Your task to perform on an android device: search for starred emails in the gmail app Image 0: 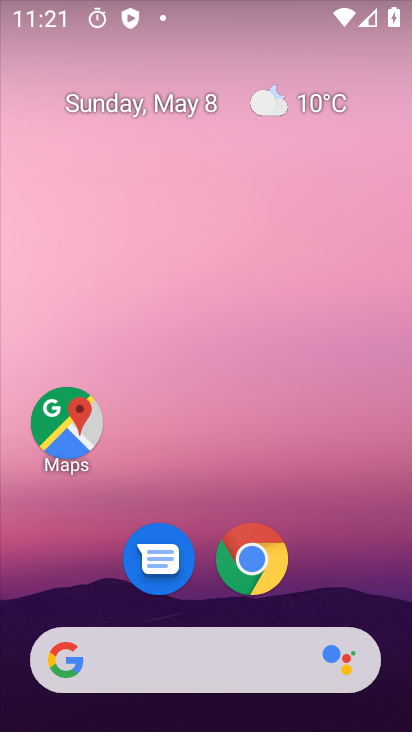
Step 0: drag from (203, 530) to (203, 111)
Your task to perform on an android device: search for starred emails in the gmail app Image 1: 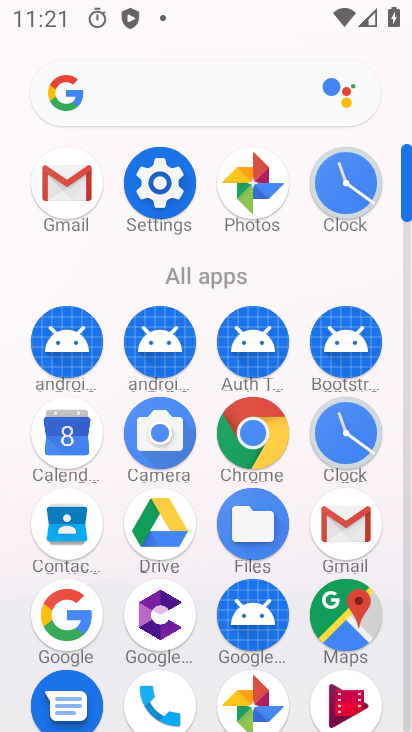
Step 1: click (335, 533)
Your task to perform on an android device: search for starred emails in the gmail app Image 2: 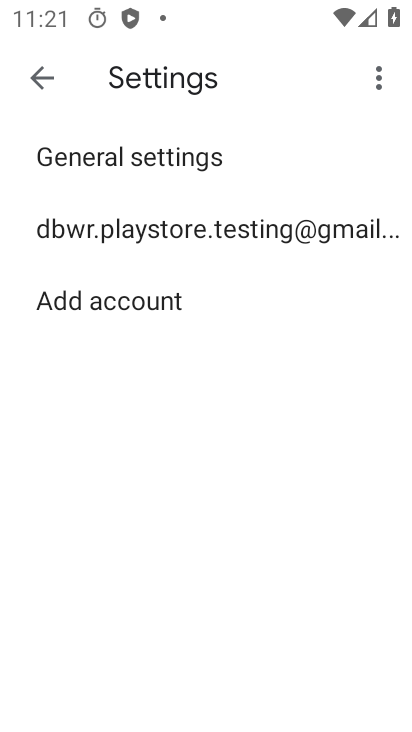
Step 2: click (62, 68)
Your task to perform on an android device: search for starred emails in the gmail app Image 3: 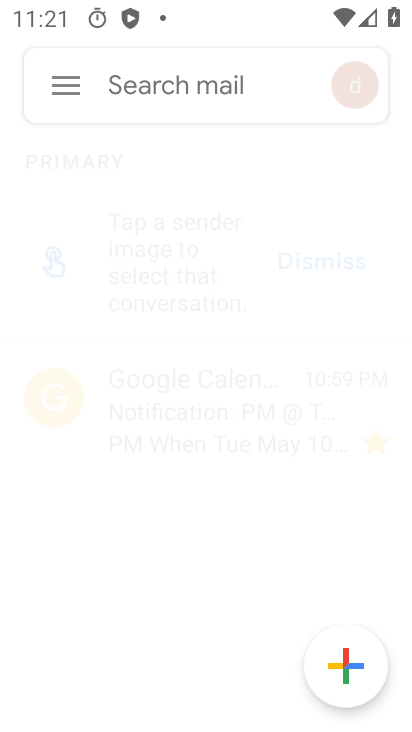
Step 3: click (77, 90)
Your task to perform on an android device: search for starred emails in the gmail app Image 4: 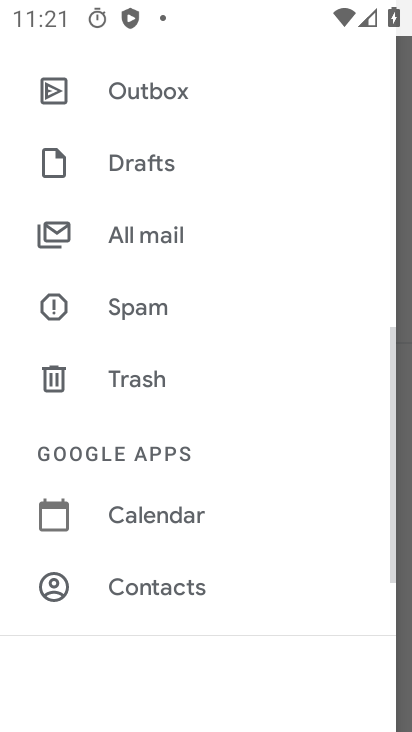
Step 4: drag from (178, 231) to (238, 728)
Your task to perform on an android device: search for starred emails in the gmail app Image 5: 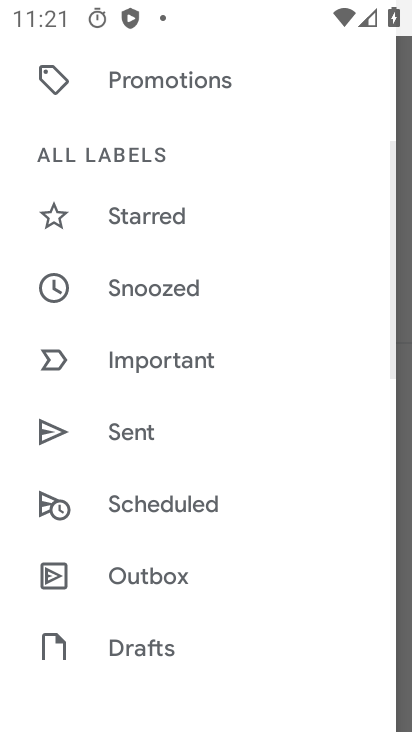
Step 5: drag from (182, 141) to (249, 641)
Your task to perform on an android device: search for starred emails in the gmail app Image 6: 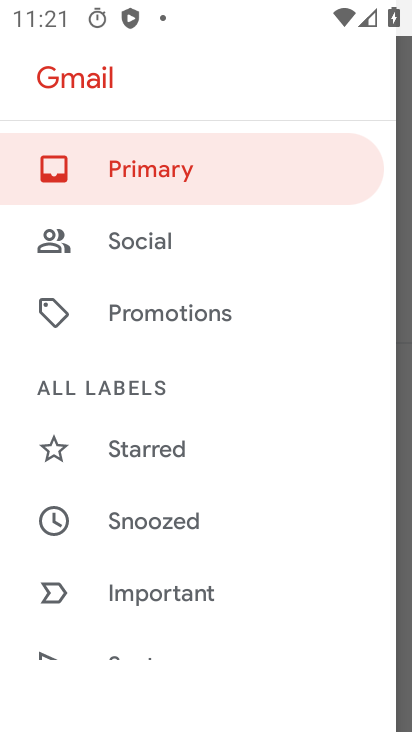
Step 6: drag from (246, 275) to (256, 392)
Your task to perform on an android device: search for starred emails in the gmail app Image 7: 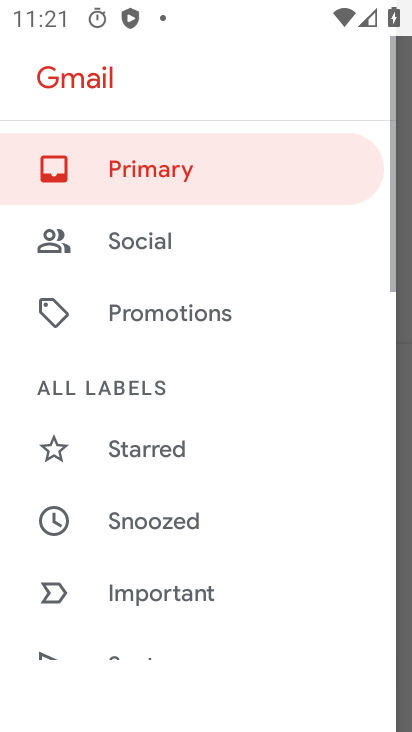
Step 7: click (174, 454)
Your task to perform on an android device: search for starred emails in the gmail app Image 8: 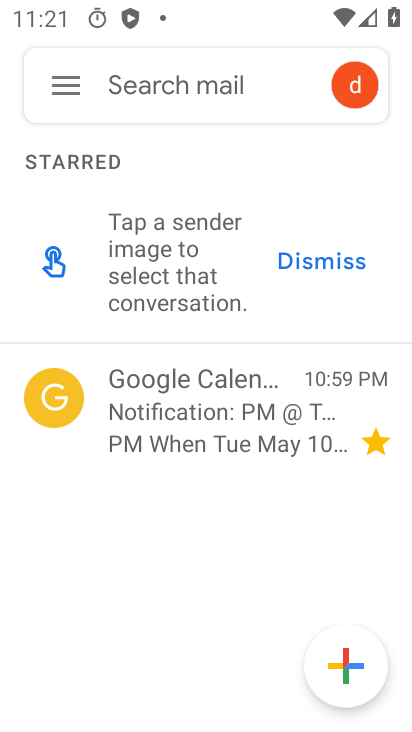
Step 8: task complete